Your task to perform on an android device: turn on priority inbox in the gmail app Image 0: 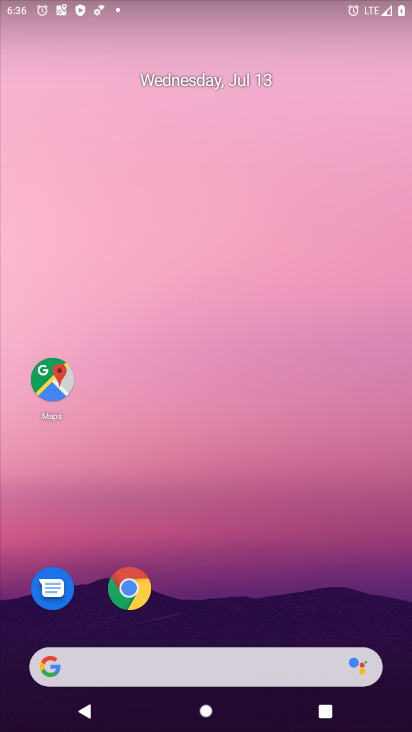
Step 0: drag from (203, 219) to (228, 58)
Your task to perform on an android device: turn on priority inbox in the gmail app Image 1: 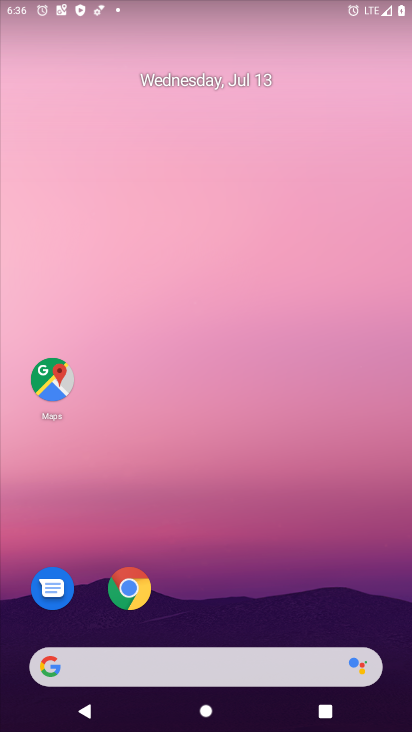
Step 1: drag from (195, 351) to (230, 46)
Your task to perform on an android device: turn on priority inbox in the gmail app Image 2: 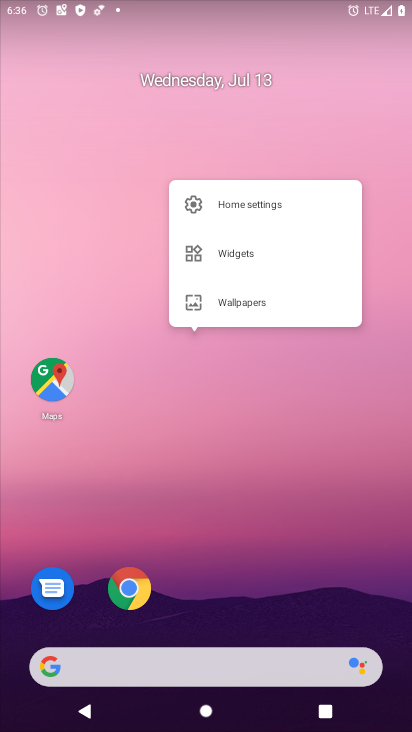
Step 2: click (183, 650)
Your task to perform on an android device: turn on priority inbox in the gmail app Image 3: 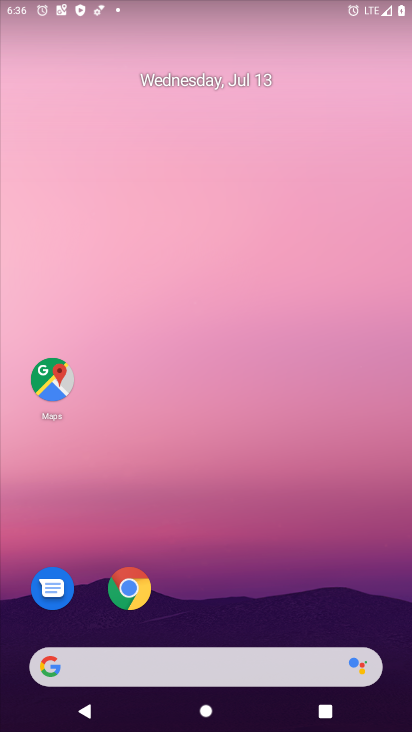
Step 3: drag from (185, 488) to (163, 9)
Your task to perform on an android device: turn on priority inbox in the gmail app Image 4: 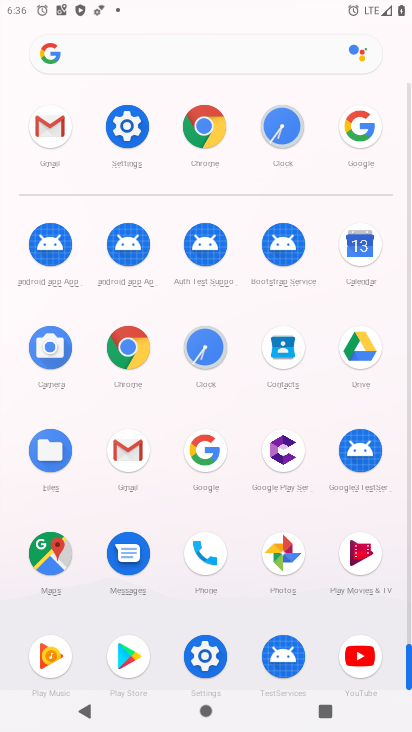
Step 4: click (54, 127)
Your task to perform on an android device: turn on priority inbox in the gmail app Image 5: 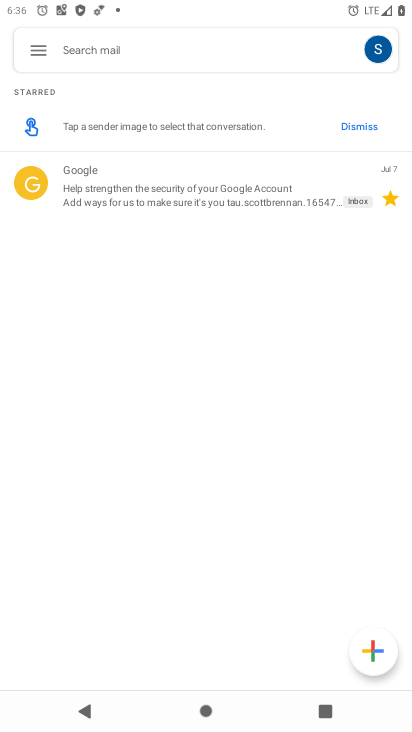
Step 5: click (38, 47)
Your task to perform on an android device: turn on priority inbox in the gmail app Image 6: 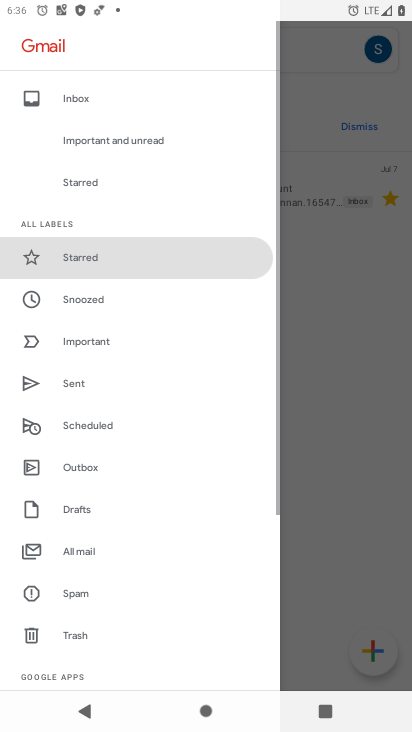
Step 6: drag from (82, 598) to (77, 286)
Your task to perform on an android device: turn on priority inbox in the gmail app Image 7: 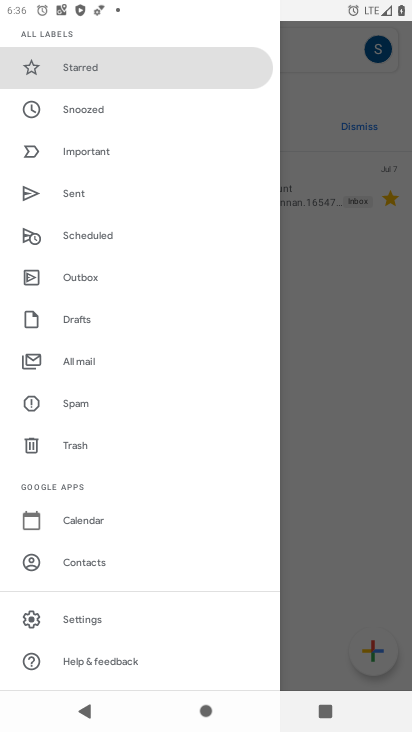
Step 7: click (70, 621)
Your task to perform on an android device: turn on priority inbox in the gmail app Image 8: 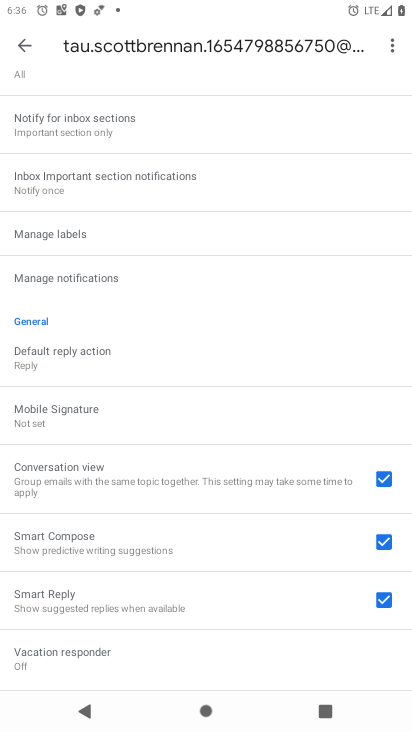
Step 8: drag from (93, 617) to (123, 452)
Your task to perform on an android device: turn on priority inbox in the gmail app Image 9: 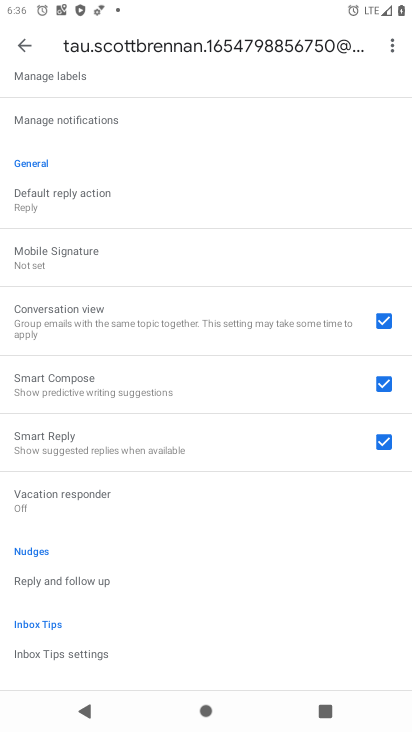
Step 9: drag from (48, 609) to (95, 275)
Your task to perform on an android device: turn on priority inbox in the gmail app Image 10: 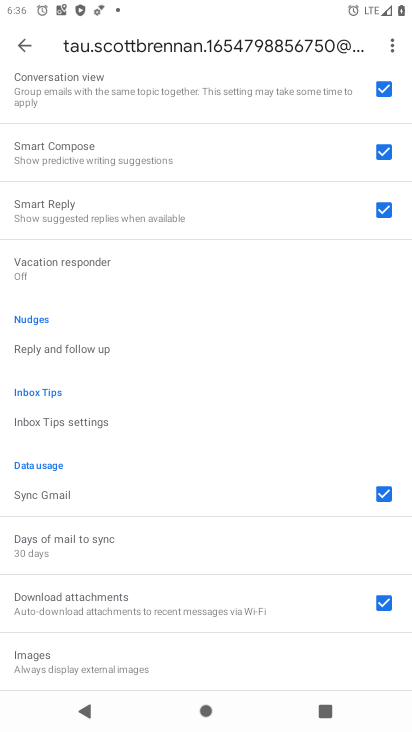
Step 10: drag from (102, 462) to (88, 571)
Your task to perform on an android device: turn on priority inbox in the gmail app Image 11: 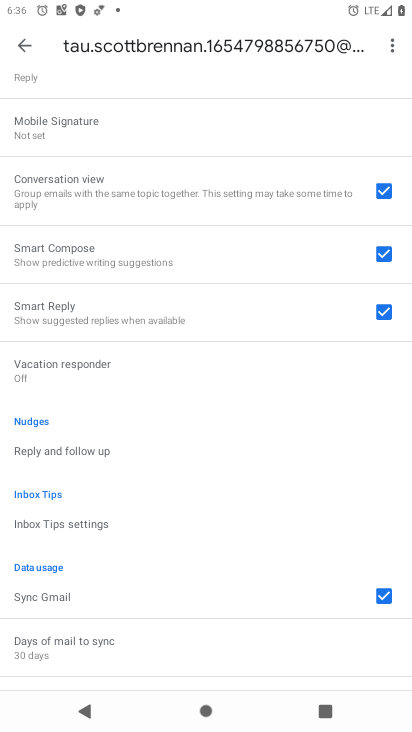
Step 11: drag from (174, 247) to (174, 593)
Your task to perform on an android device: turn on priority inbox in the gmail app Image 12: 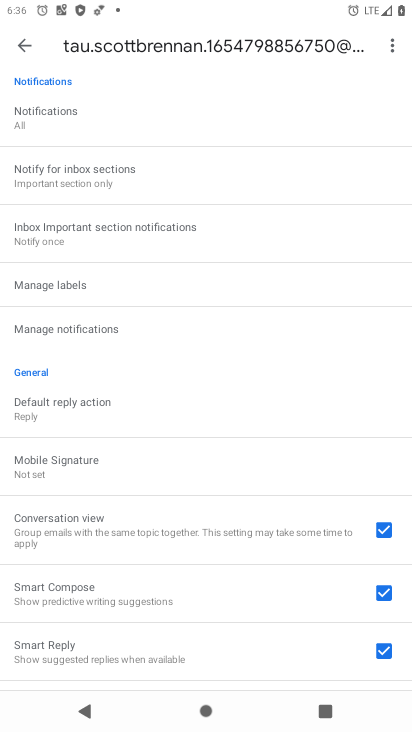
Step 12: drag from (65, 249) to (73, 511)
Your task to perform on an android device: turn on priority inbox in the gmail app Image 13: 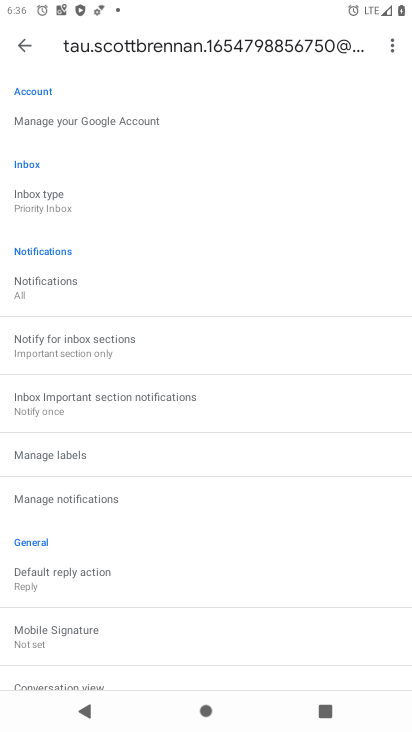
Step 13: click (46, 192)
Your task to perform on an android device: turn on priority inbox in the gmail app Image 14: 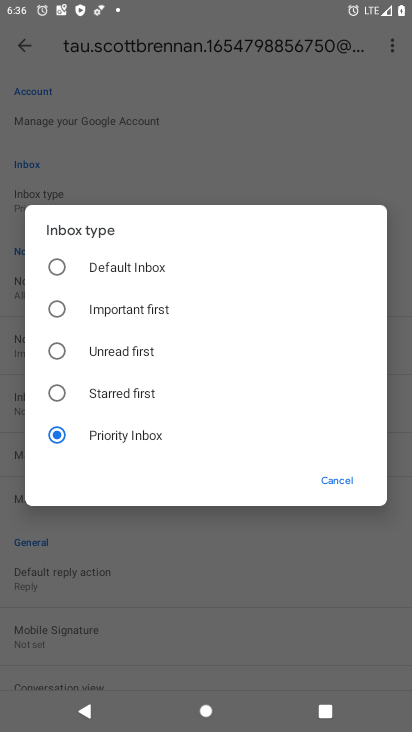
Step 14: task complete